Your task to perform on an android device: Go to calendar. Show me events next week Image 0: 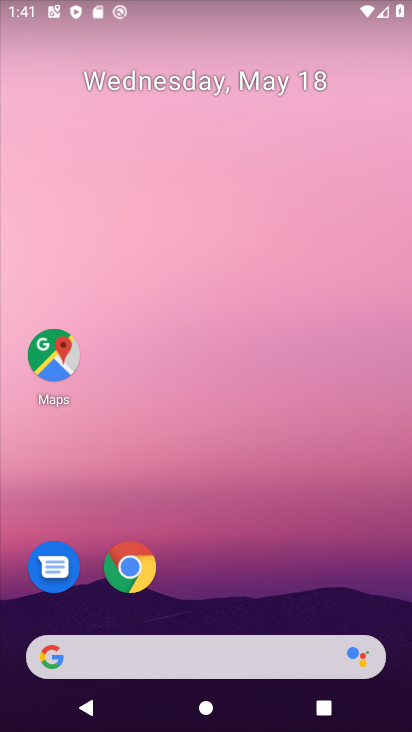
Step 0: drag from (231, 568) to (277, 93)
Your task to perform on an android device: Go to calendar. Show me events next week Image 1: 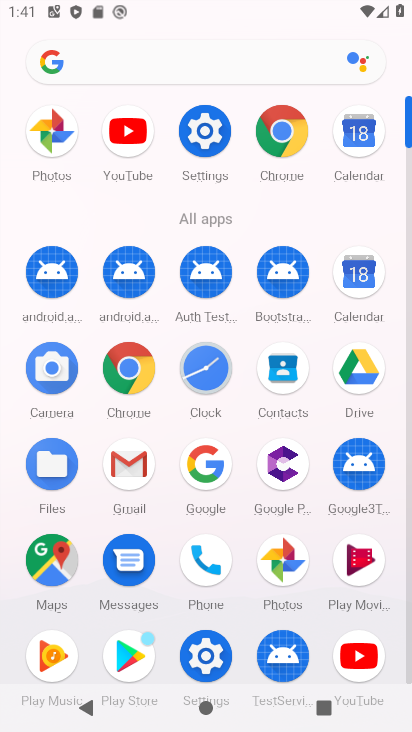
Step 1: click (360, 259)
Your task to perform on an android device: Go to calendar. Show me events next week Image 2: 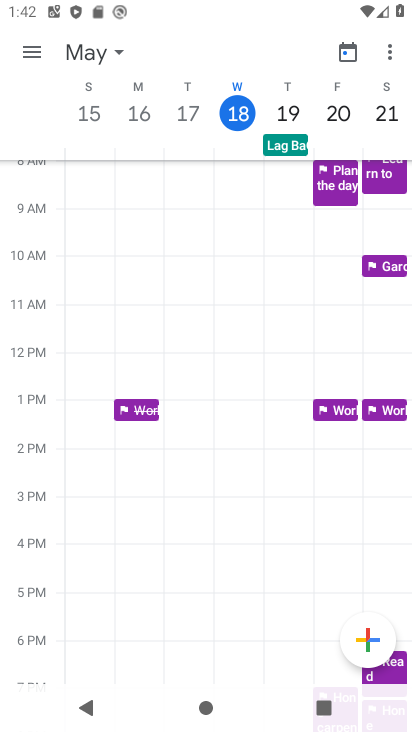
Step 2: task complete